Your task to perform on an android device: Play the last video I watched on Youtube Image 0: 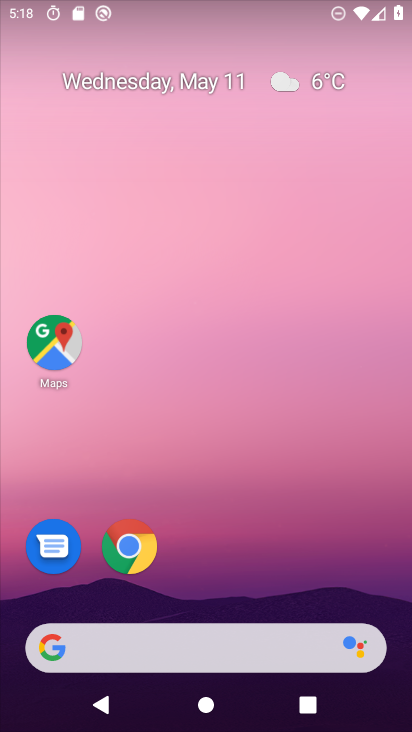
Step 0: drag from (243, 616) to (220, 90)
Your task to perform on an android device: Play the last video I watched on Youtube Image 1: 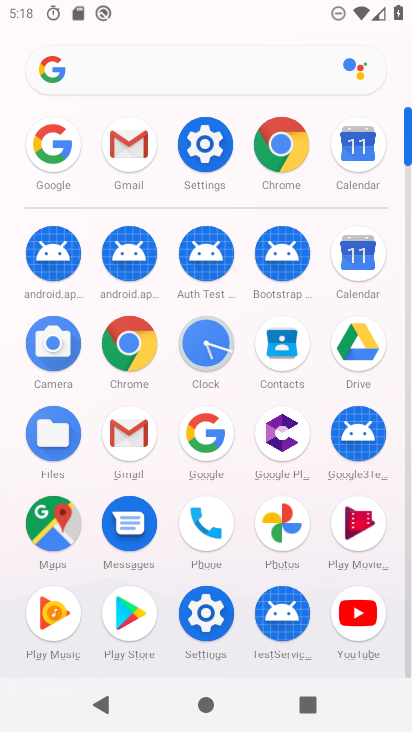
Step 1: click (360, 624)
Your task to perform on an android device: Play the last video I watched on Youtube Image 2: 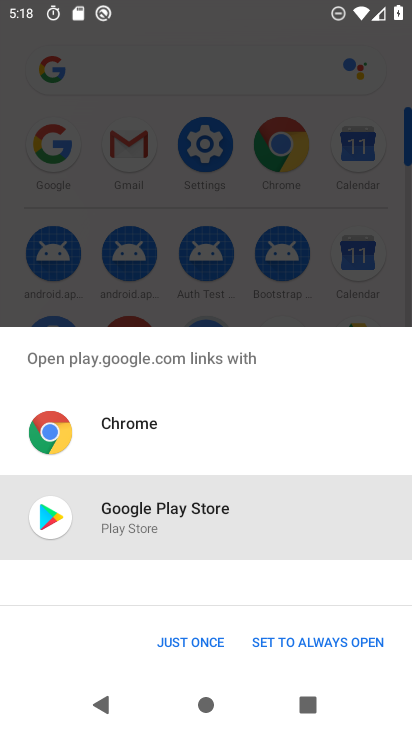
Step 2: click (292, 636)
Your task to perform on an android device: Play the last video I watched on Youtube Image 3: 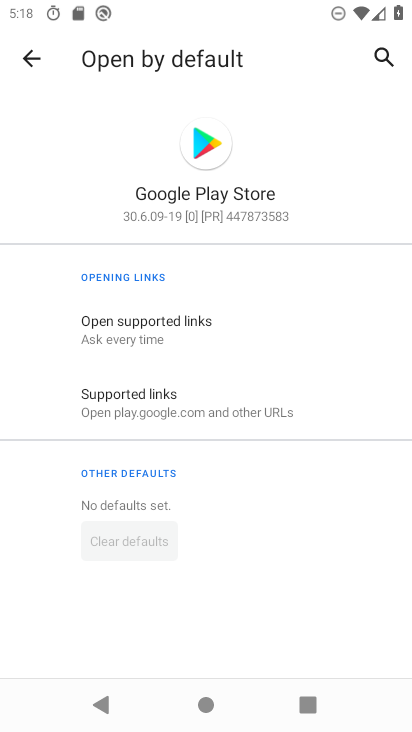
Step 3: click (173, 186)
Your task to perform on an android device: Play the last video I watched on Youtube Image 4: 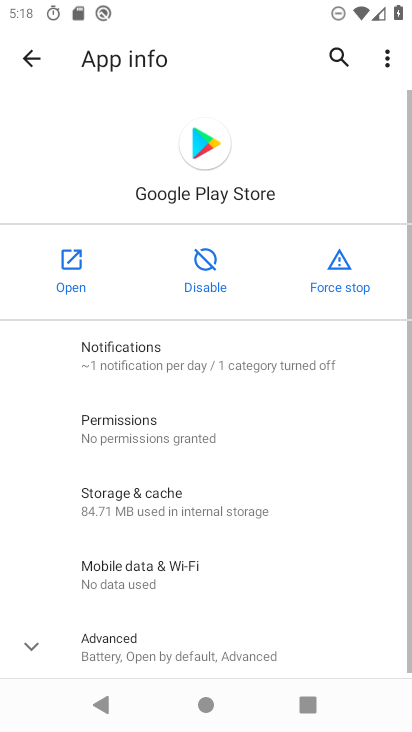
Step 4: click (69, 247)
Your task to perform on an android device: Play the last video I watched on Youtube Image 5: 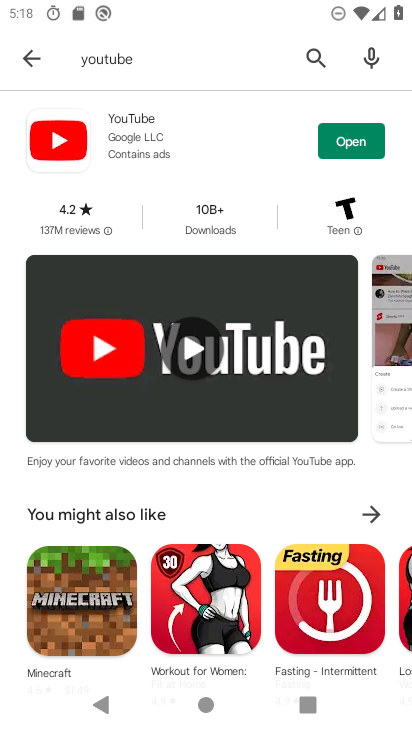
Step 5: click (335, 143)
Your task to perform on an android device: Play the last video I watched on Youtube Image 6: 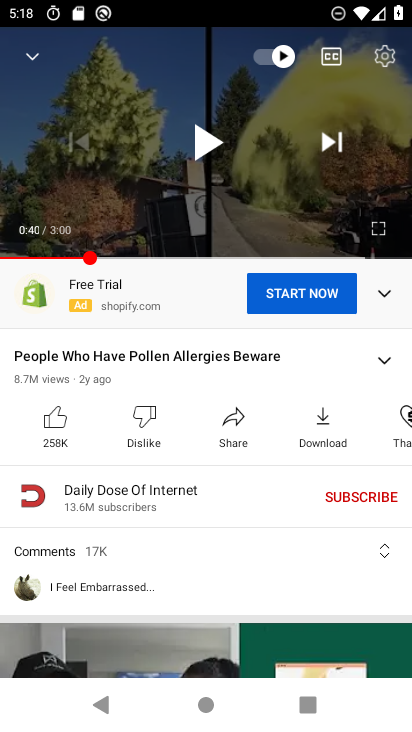
Step 6: click (207, 143)
Your task to perform on an android device: Play the last video I watched on Youtube Image 7: 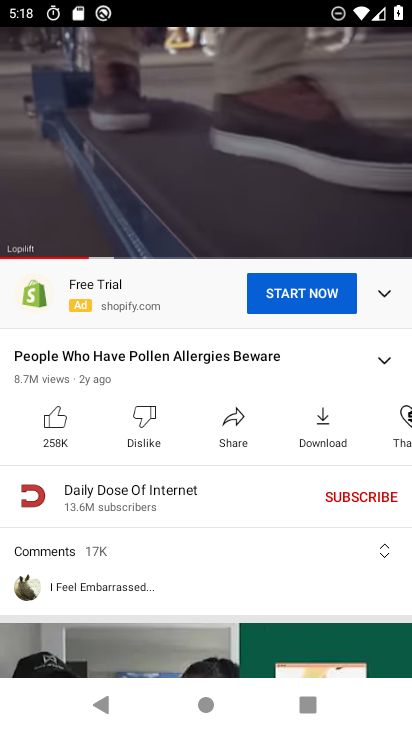
Step 7: task complete